Your task to perform on an android device: delete location history Image 0: 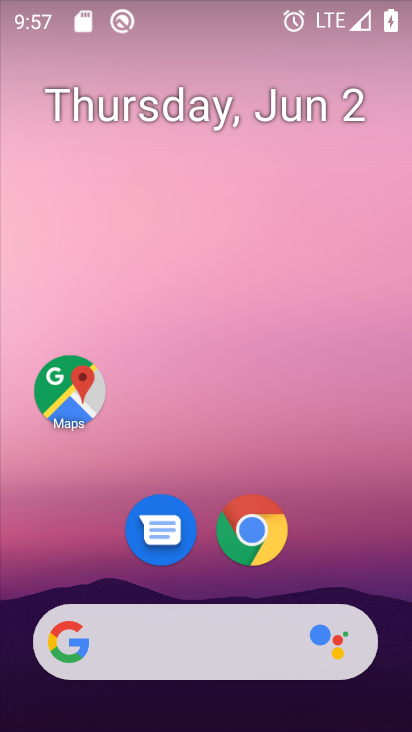
Step 0: drag from (150, 608) to (170, 388)
Your task to perform on an android device: delete location history Image 1: 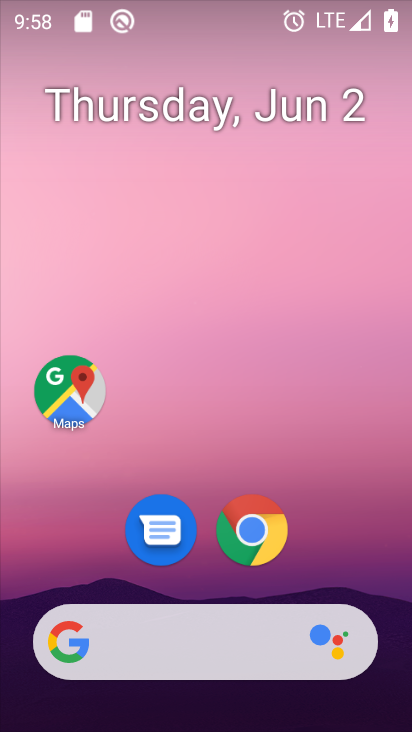
Step 1: drag from (254, 601) to (233, 314)
Your task to perform on an android device: delete location history Image 2: 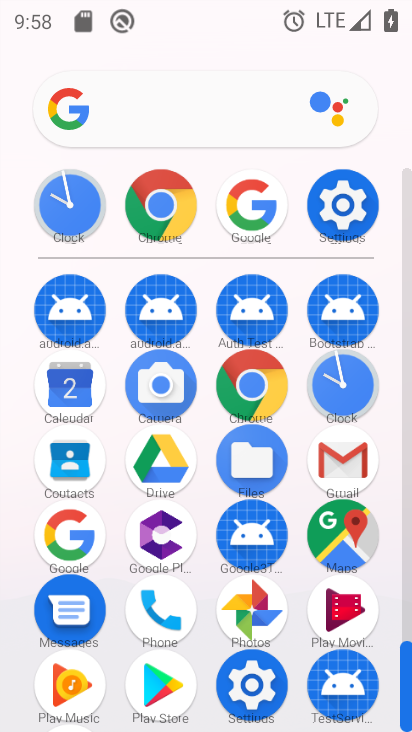
Step 2: click (342, 217)
Your task to perform on an android device: delete location history Image 3: 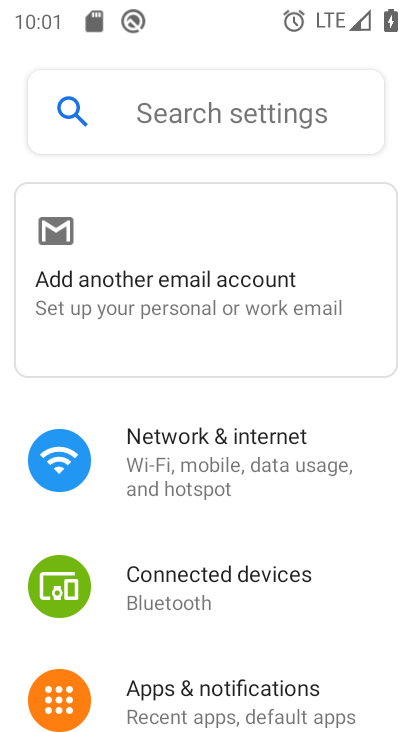
Step 3: drag from (188, 685) to (220, 292)
Your task to perform on an android device: delete location history Image 4: 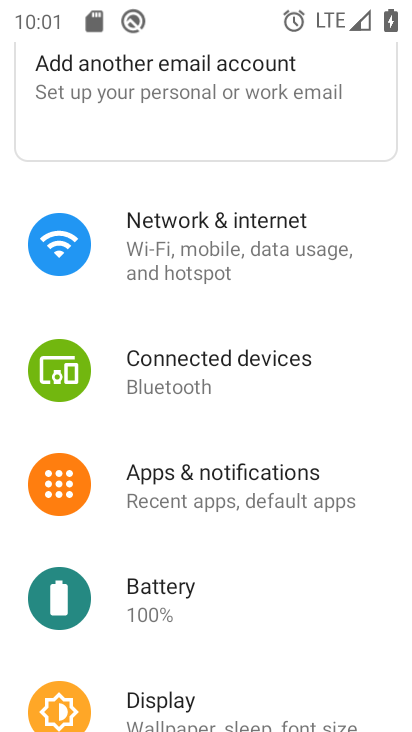
Step 4: drag from (154, 718) to (228, 304)
Your task to perform on an android device: delete location history Image 5: 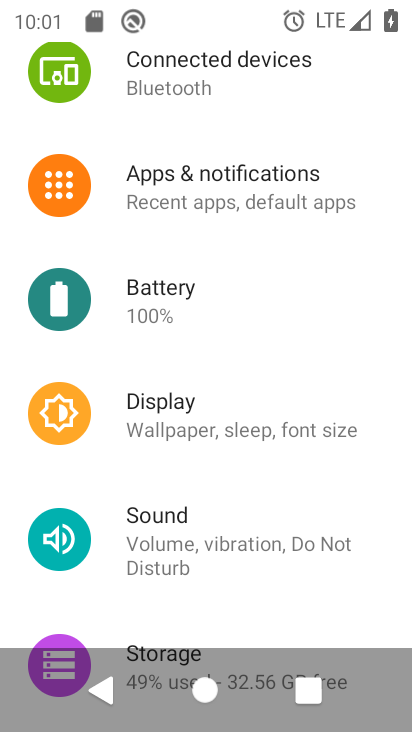
Step 5: drag from (198, 595) to (224, 329)
Your task to perform on an android device: delete location history Image 6: 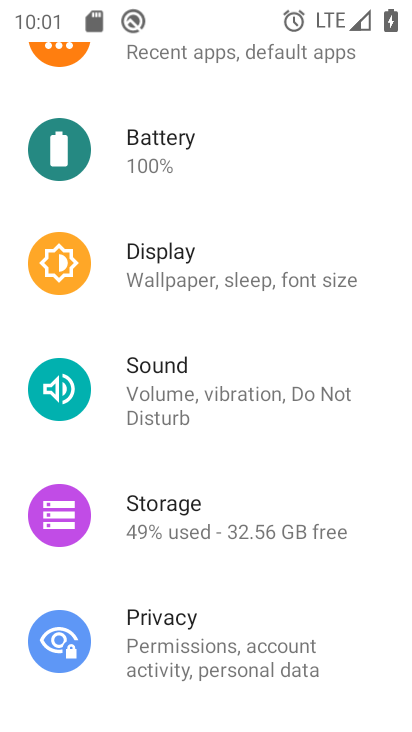
Step 6: drag from (180, 673) to (222, 279)
Your task to perform on an android device: delete location history Image 7: 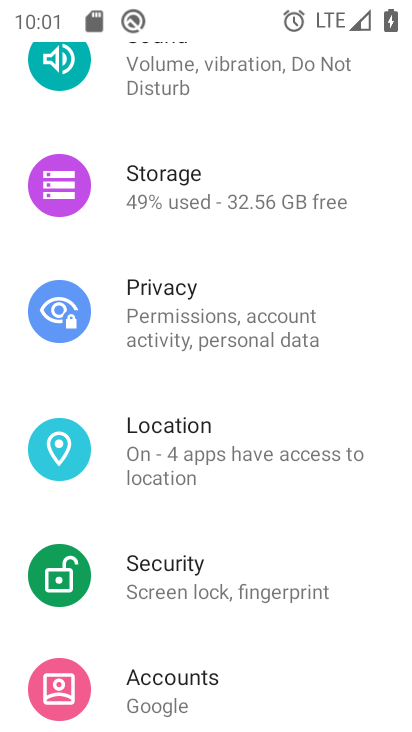
Step 7: click (185, 438)
Your task to perform on an android device: delete location history Image 8: 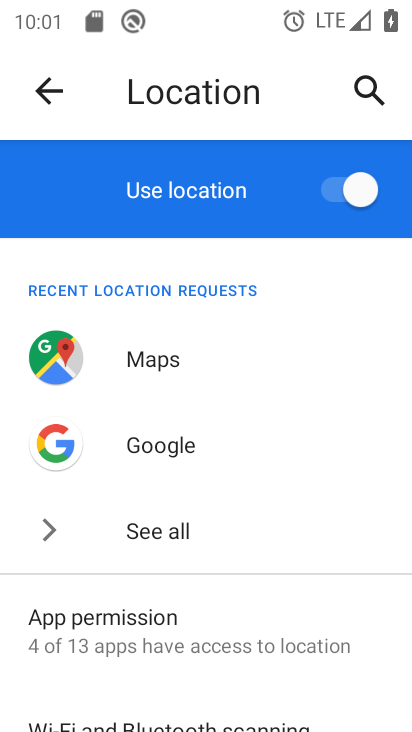
Step 8: drag from (46, 678) to (106, 452)
Your task to perform on an android device: delete location history Image 9: 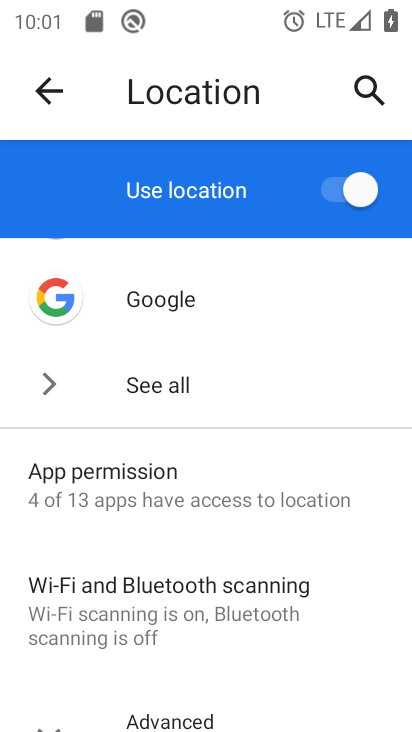
Step 9: click (145, 718)
Your task to perform on an android device: delete location history Image 10: 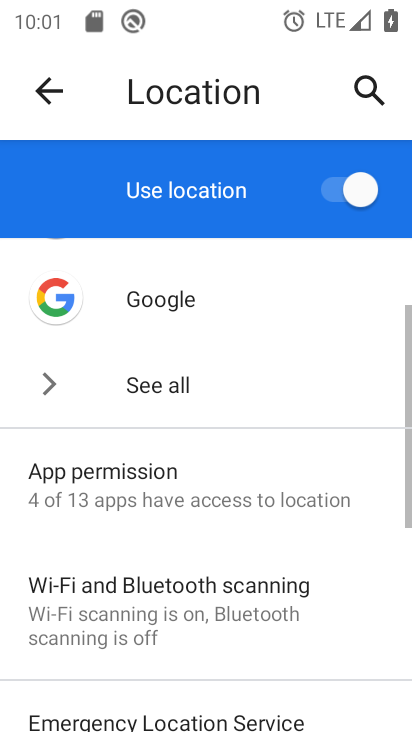
Step 10: drag from (203, 644) to (248, 333)
Your task to perform on an android device: delete location history Image 11: 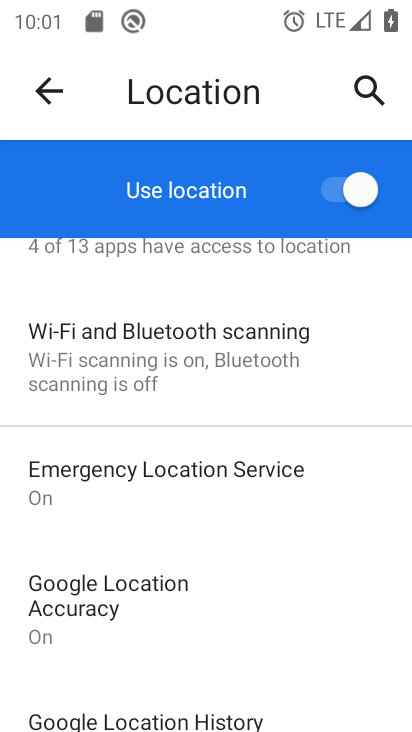
Step 11: drag from (134, 673) to (173, 299)
Your task to perform on an android device: delete location history Image 12: 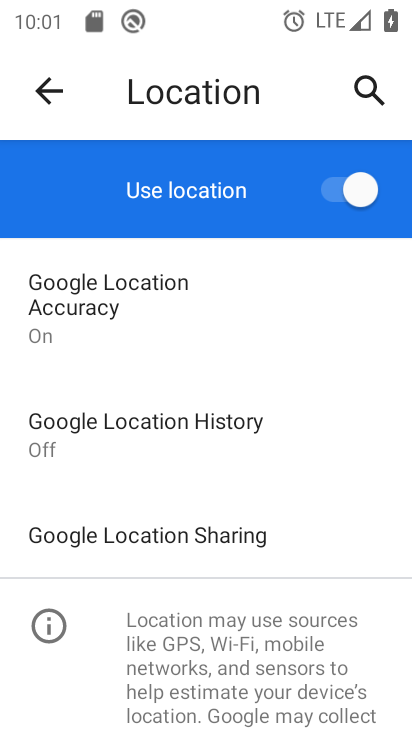
Step 12: click (177, 441)
Your task to perform on an android device: delete location history Image 13: 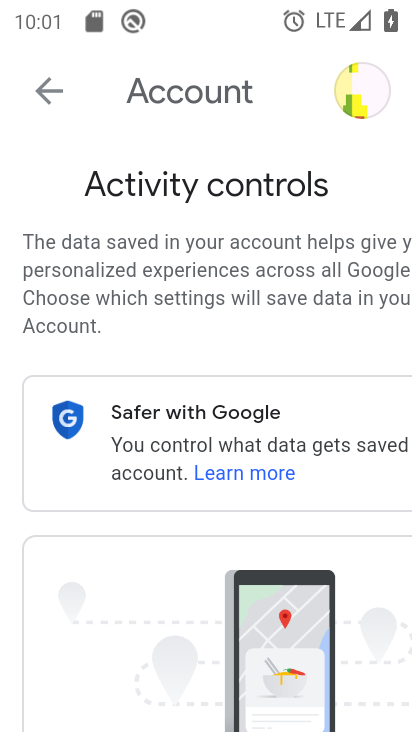
Step 13: drag from (174, 651) to (249, 242)
Your task to perform on an android device: delete location history Image 14: 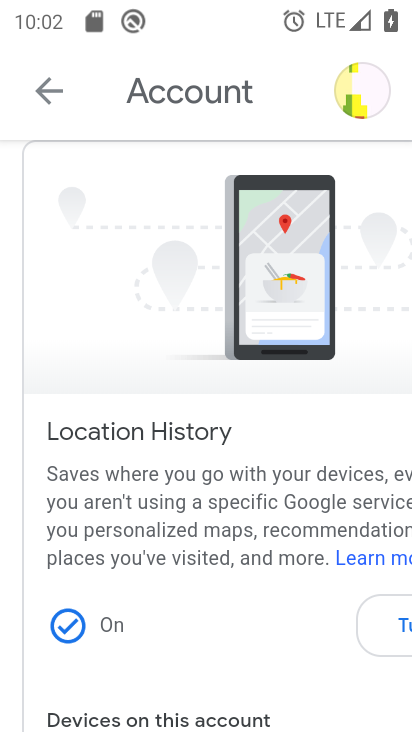
Step 14: drag from (136, 664) to (166, 168)
Your task to perform on an android device: delete location history Image 15: 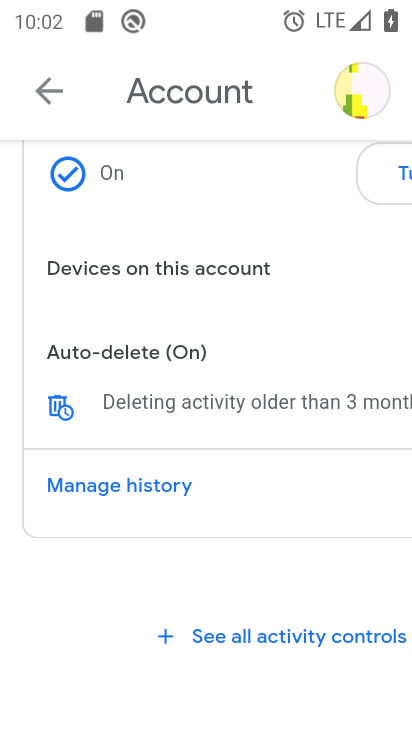
Step 15: click (147, 412)
Your task to perform on an android device: delete location history Image 16: 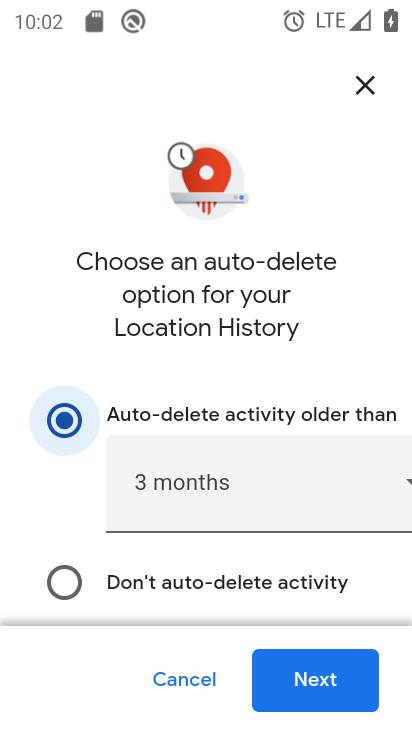
Step 16: click (307, 684)
Your task to perform on an android device: delete location history Image 17: 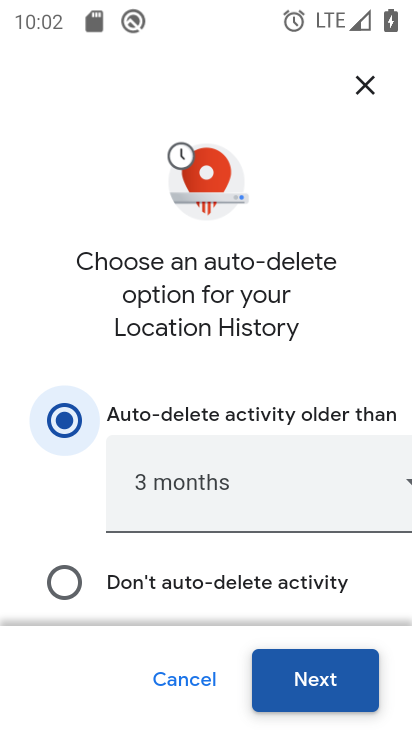
Step 17: click (302, 685)
Your task to perform on an android device: delete location history Image 18: 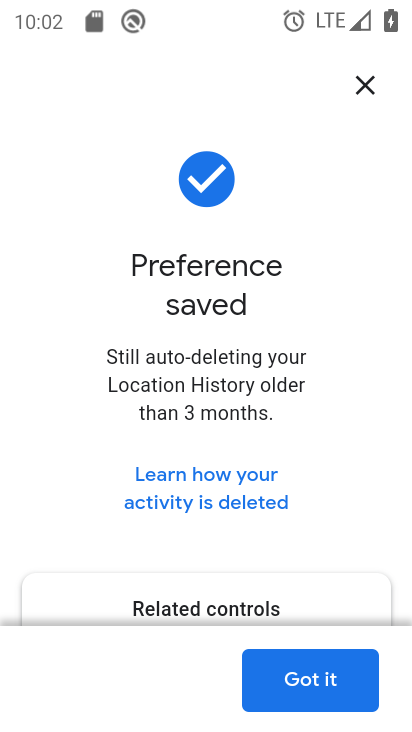
Step 18: click (311, 694)
Your task to perform on an android device: delete location history Image 19: 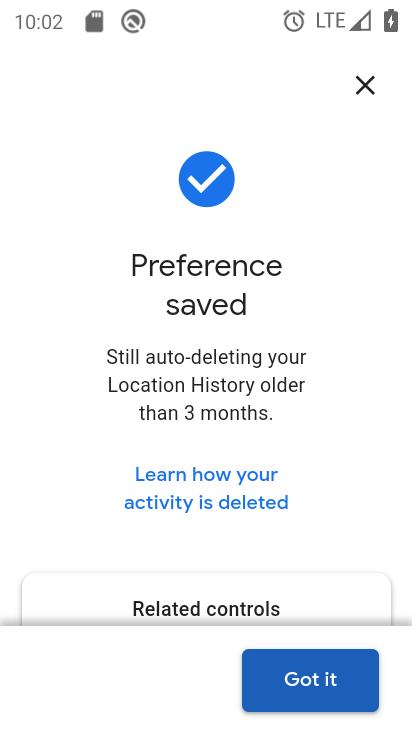
Step 19: click (325, 681)
Your task to perform on an android device: delete location history Image 20: 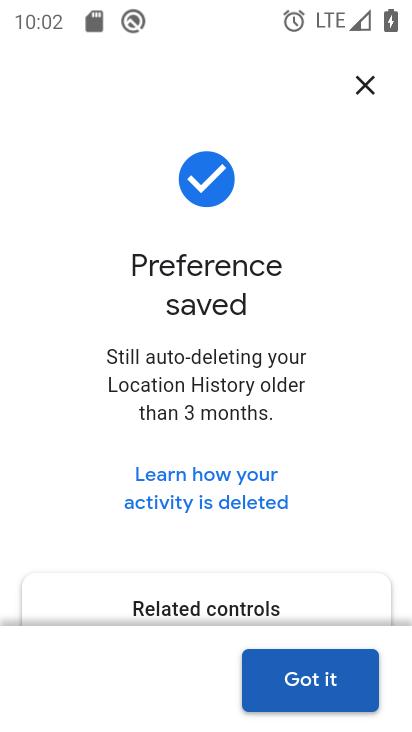
Step 20: task complete